Your task to perform on an android device: Clear the shopping cart on bestbuy.com. Add "razer thresher" to the cart on bestbuy.com Image 0: 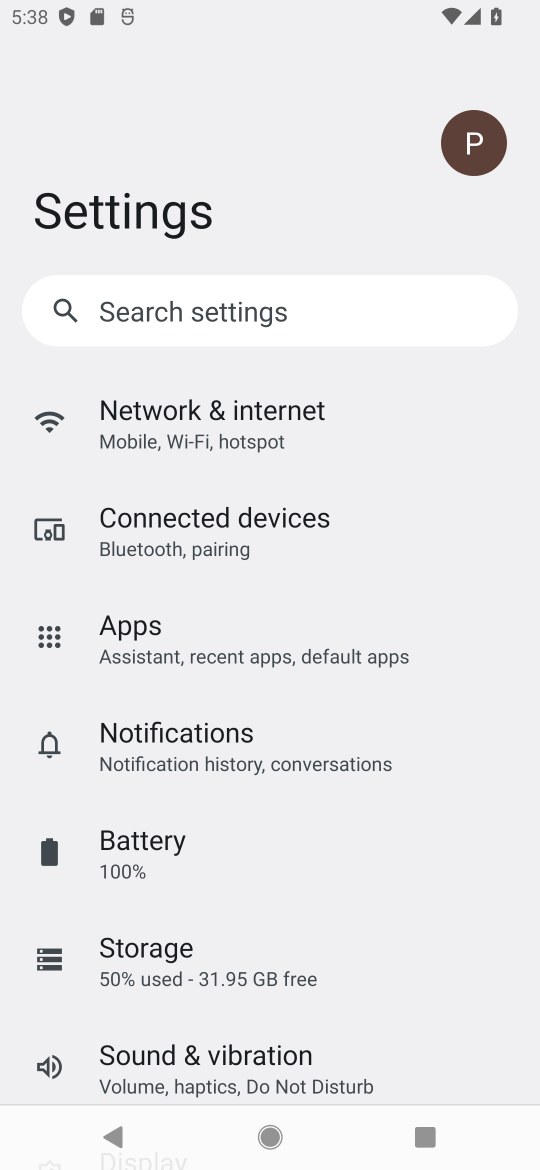
Step 0: press home button
Your task to perform on an android device: Clear the shopping cart on bestbuy.com. Add "razer thresher" to the cart on bestbuy.com Image 1: 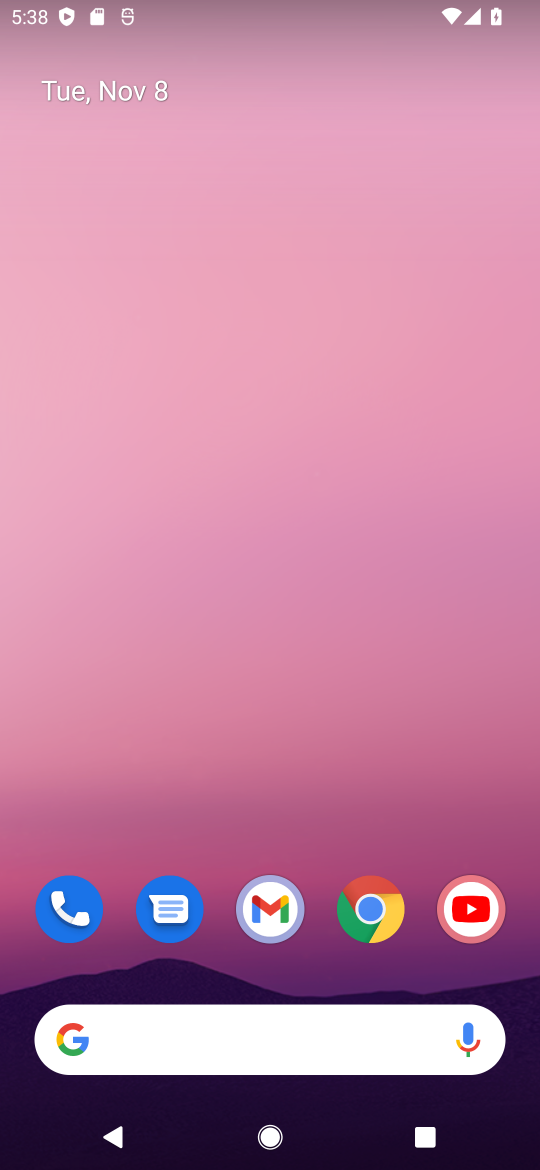
Step 1: click (373, 909)
Your task to perform on an android device: Clear the shopping cart on bestbuy.com. Add "razer thresher" to the cart on bestbuy.com Image 2: 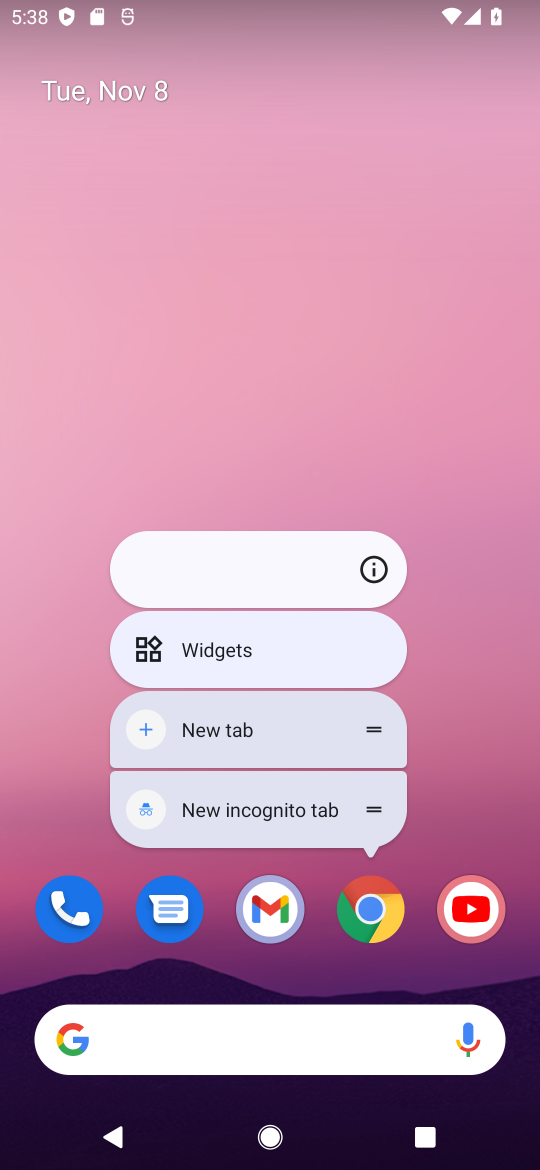
Step 2: click (371, 912)
Your task to perform on an android device: Clear the shopping cart on bestbuy.com. Add "razer thresher" to the cart on bestbuy.com Image 3: 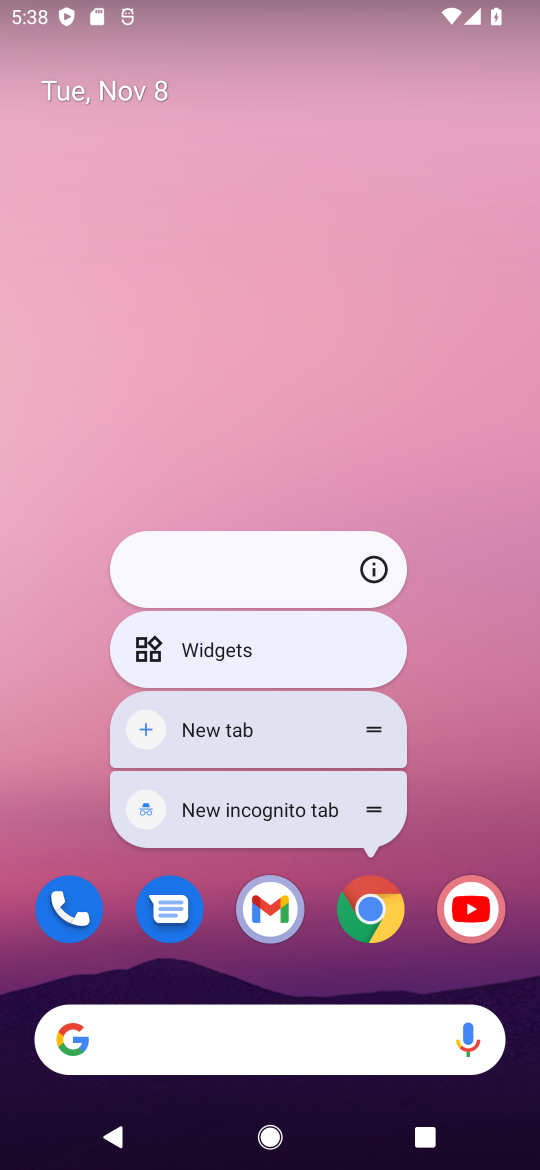
Step 3: click (369, 916)
Your task to perform on an android device: Clear the shopping cart on bestbuy.com. Add "razer thresher" to the cart on bestbuy.com Image 4: 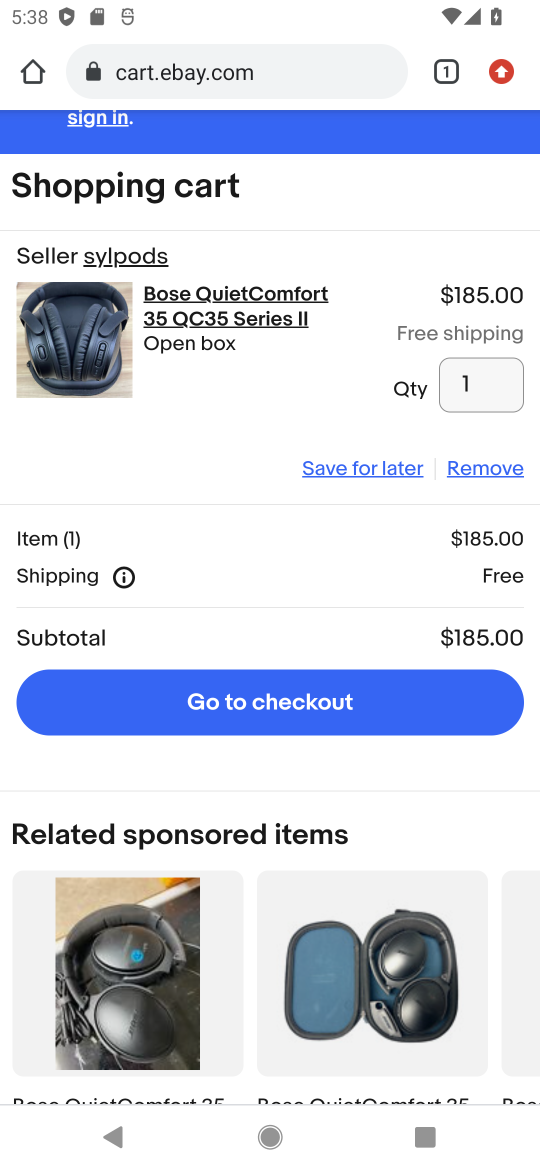
Step 4: click (267, 76)
Your task to perform on an android device: Clear the shopping cart on bestbuy.com. Add "razer thresher" to the cart on bestbuy.com Image 5: 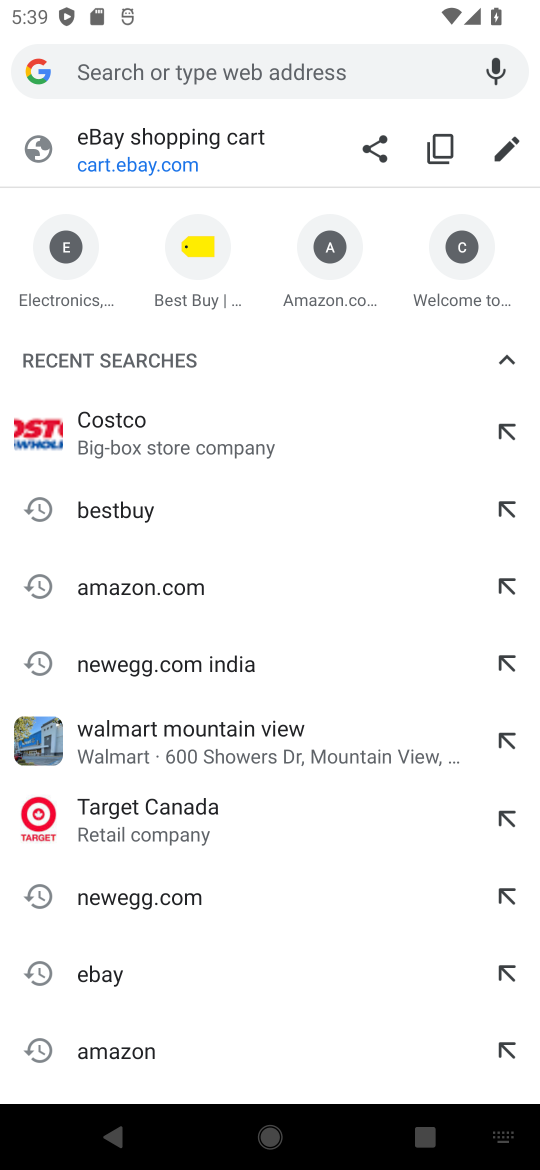
Step 5: click (85, 515)
Your task to perform on an android device: Clear the shopping cart on bestbuy.com. Add "razer thresher" to the cart on bestbuy.com Image 6: 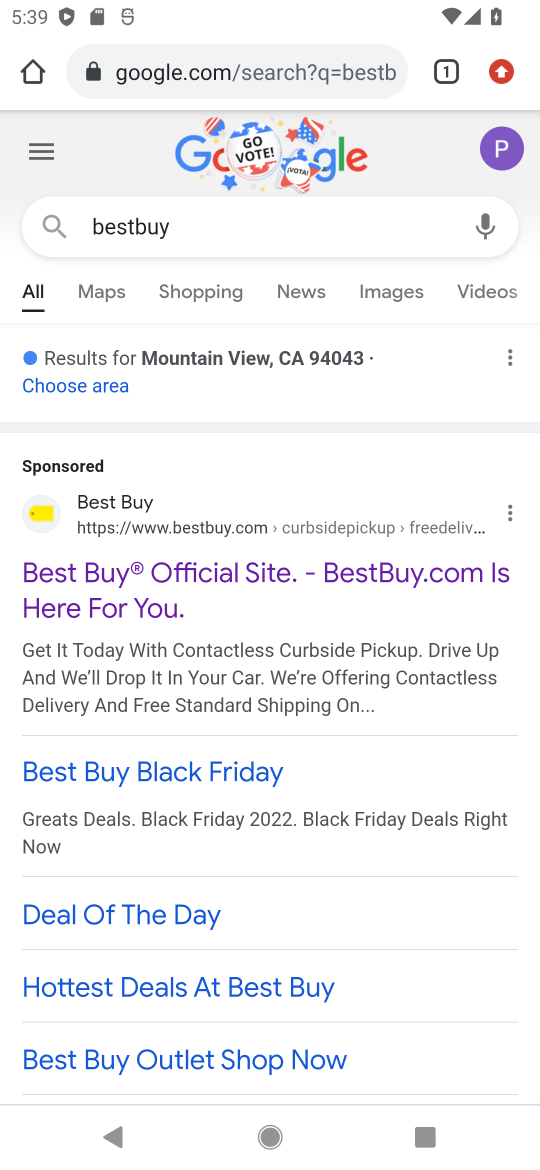
Step 6: click (120, 589)
Your task to perform on an android device: Clear the shopping cart on bestbuy.com. Add "razer thresher" to the cart on bestbuy.com Image 7: 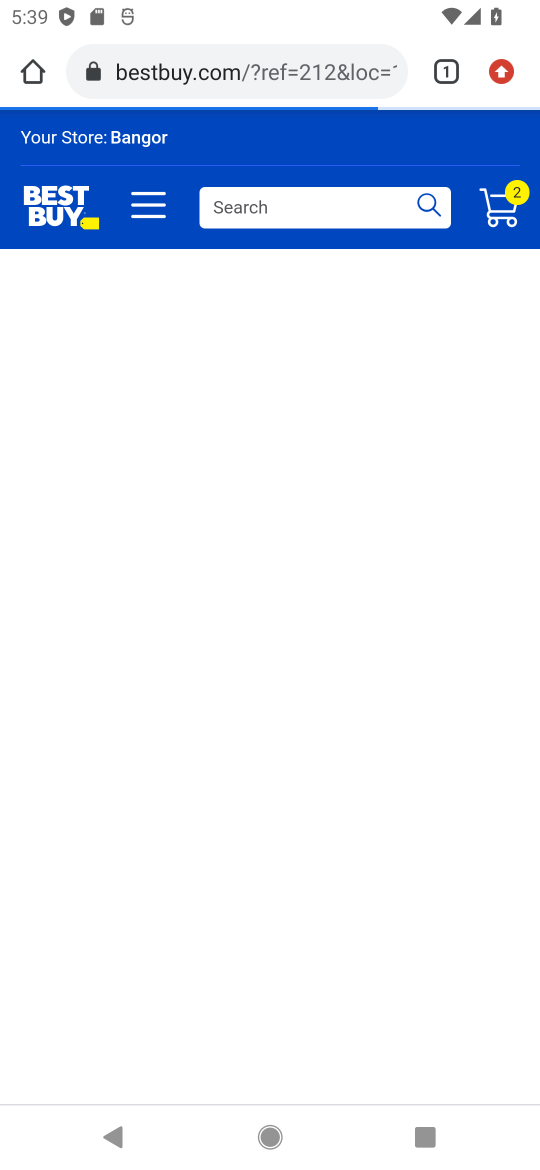
Step 7: click (117, 571)
Your task to perform on an android device: Clear the shopping cart on bestbuy.com. Add "razer thresher" to the cart on bestbuy.com Image 8: 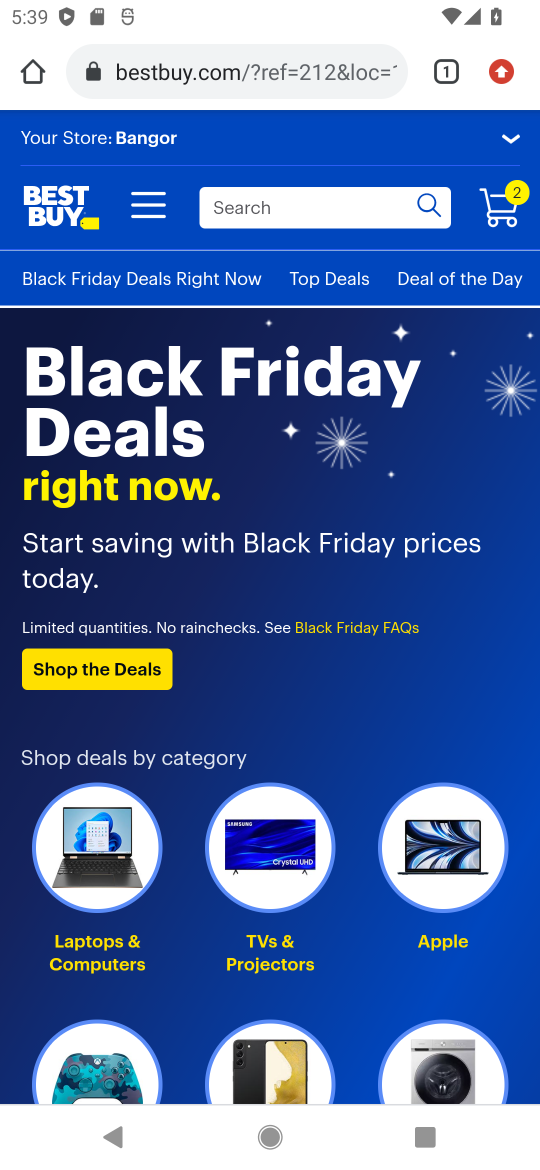
Step 8: click (301, 202)
Your task to perform on an android device: Clear the shopping cart on bestbuy.com. Add "razer thresher" to the cart on bestbuy.com Image 9: 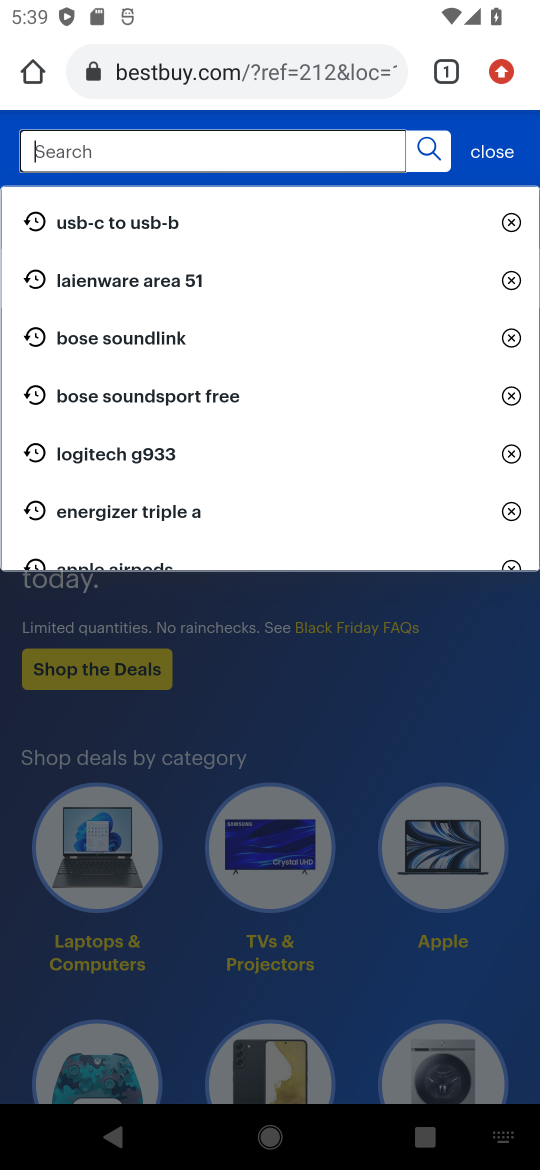
Step 9: type "razer thresher"
Your task to perform on an android device: Clear the shopping cart on bestbuy.com. Add "razer thresher" to the cart on bestbuy.com Image 10: 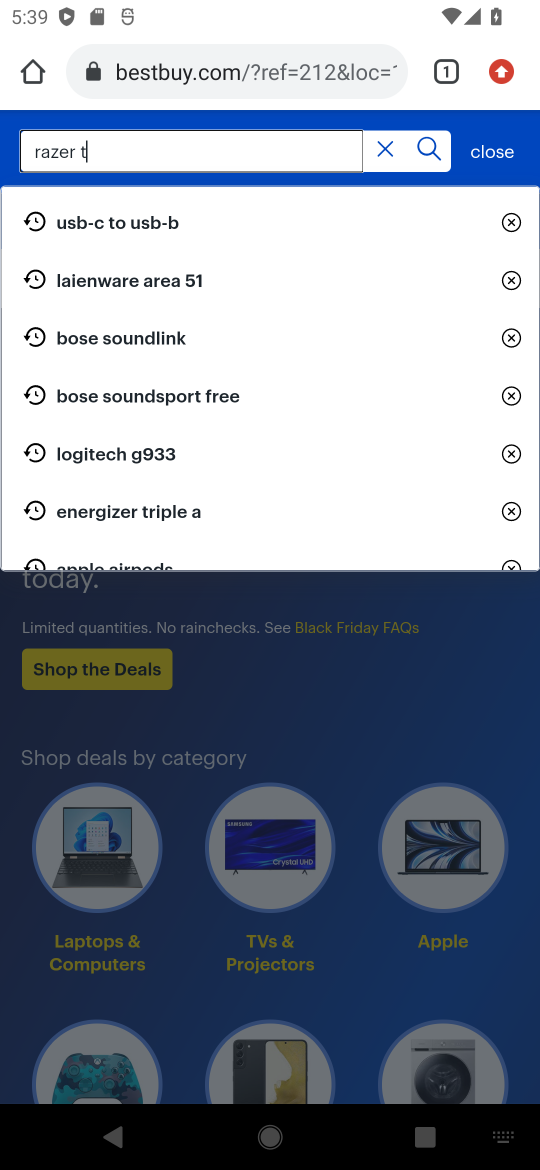
Step 10: press enter
Your task to perform on an android device: Clear the shopping cart on bestbuy.com. Add "razer thresher" to the cart on bestbuy.com Image 11: 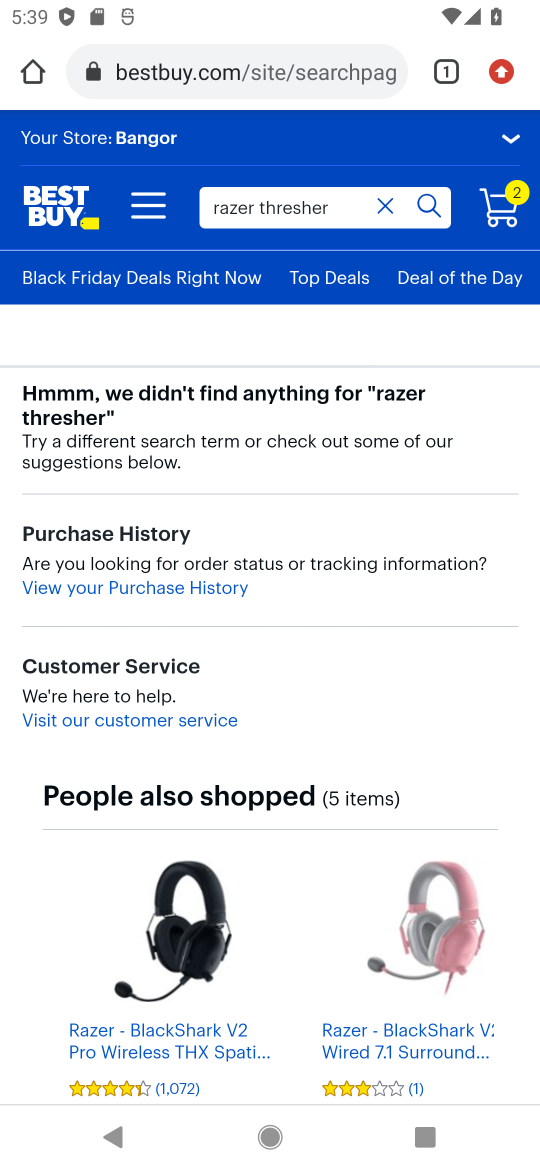
Step 11: task complete